Your task to perform on an android device: Go to Reddit.com Image 0: 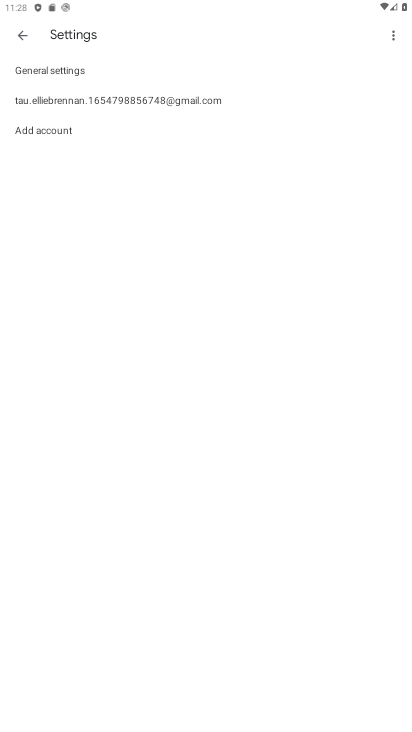
Step 0: press home button
Your task to perform on an android device: Go to Reddit.com Image 1: 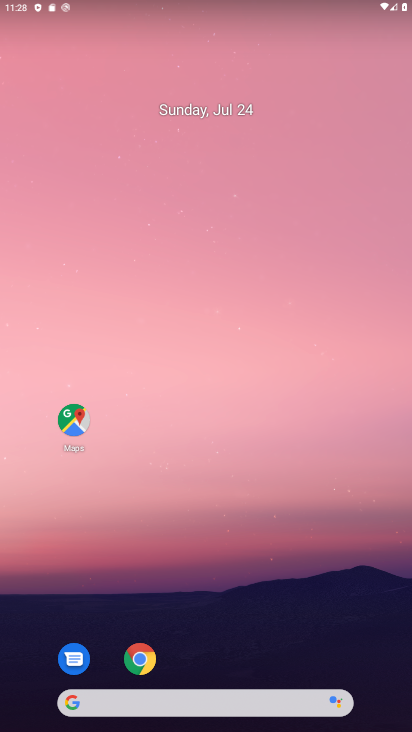
Step 1: click (152, 702)
Your task to perform on an android device: Go to Reddit.com Image 2: 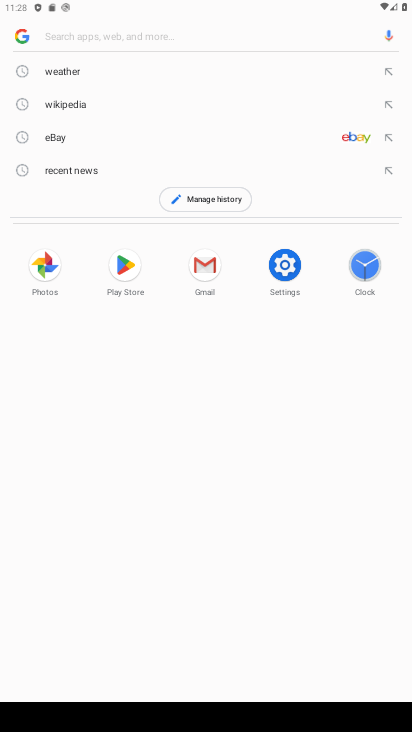
Step 2: type "Reddit.com"
Your task to perform on an android device: Go to Reddit.com Image 3: 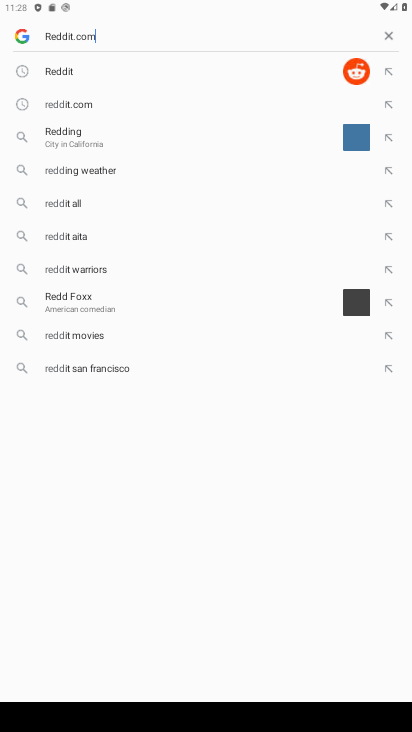
Step 3: type ""
Your task to perform on an android device: Go to Reddit.com Image 4: 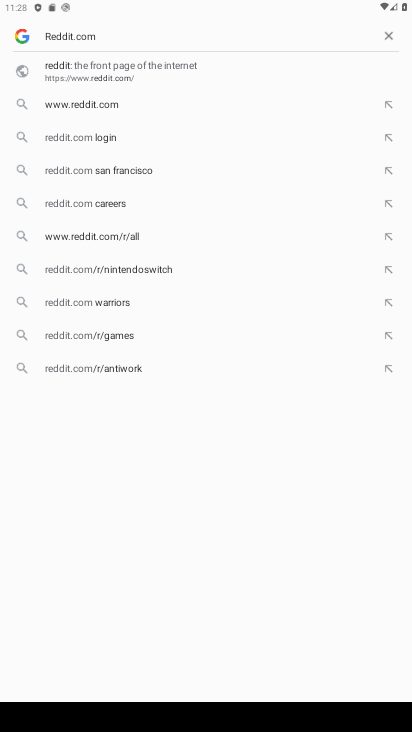
Step 4: type ""
Your task to perform on an android device: Go to Reddit.com Image 5: 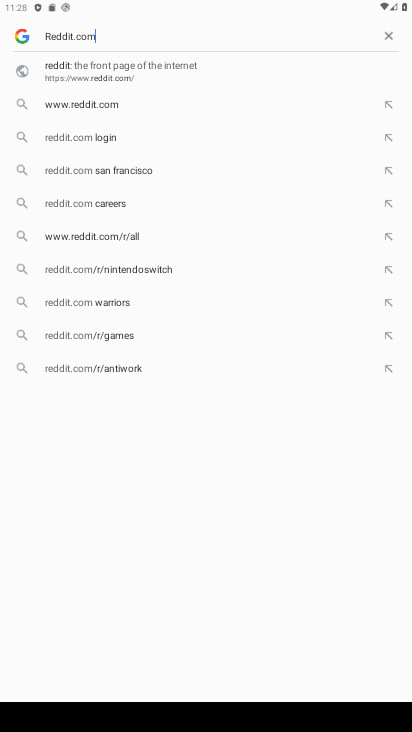
Step 5: type ""
Your task to perform on an android device: Go to Reddit.com Image 6: 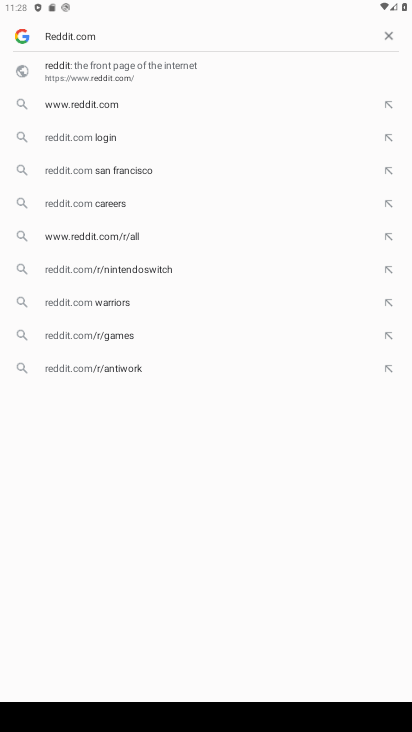
Step 6: task complete